Your task to perform on an android device: turn off priority inbox in the gmail app Image 0: 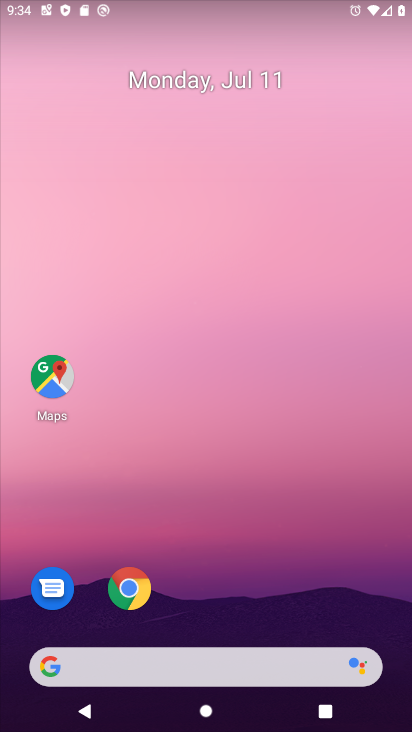
Step 0: drag from (183, 482) to (269, 44)
Your task to perform on an android device: turn off priority inbox in the gmail app Image 1: 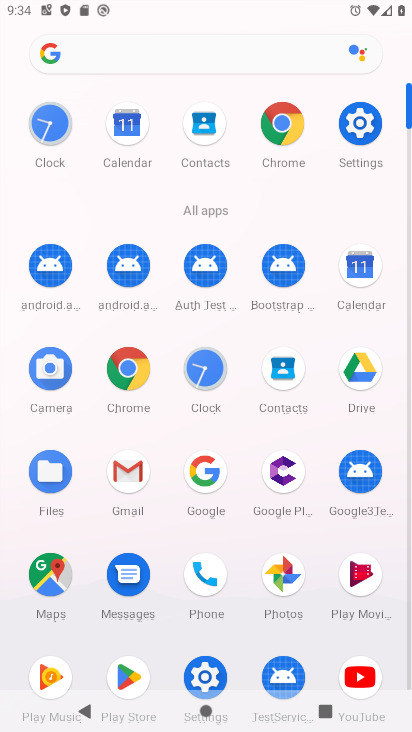
Step 1: click (127, 460)
Your task to perform on an android device: turn off priority inbox in the gmail app Image 2: 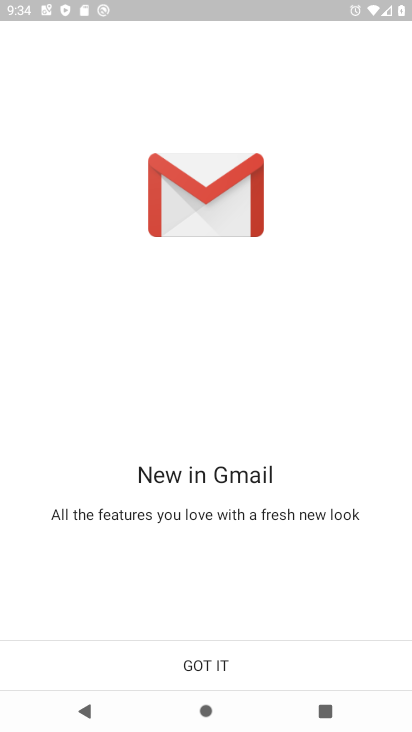
Step 2: click (203, 645)
Your task to perform on an android device: turn off priority inbox in the gmail app Image 3: 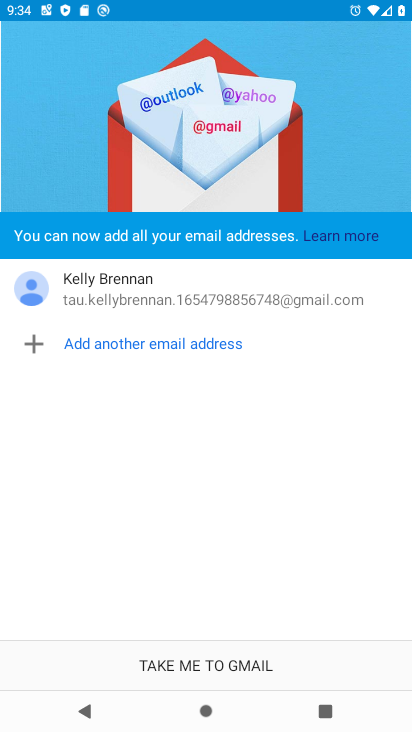
Step 3: click (182, 660)
Your task to perform on an android device: turn off priority inbox in the gmail app Image 4: 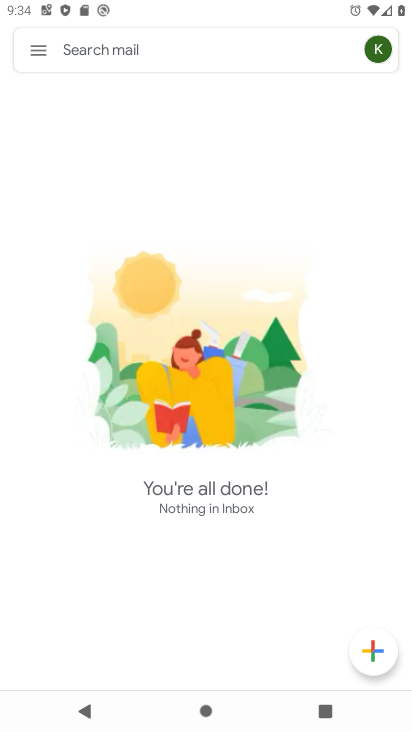
Step 4: click (32, 48)
Your task to perform on an android device: turn off priority inbox in the gmail app Image 5: 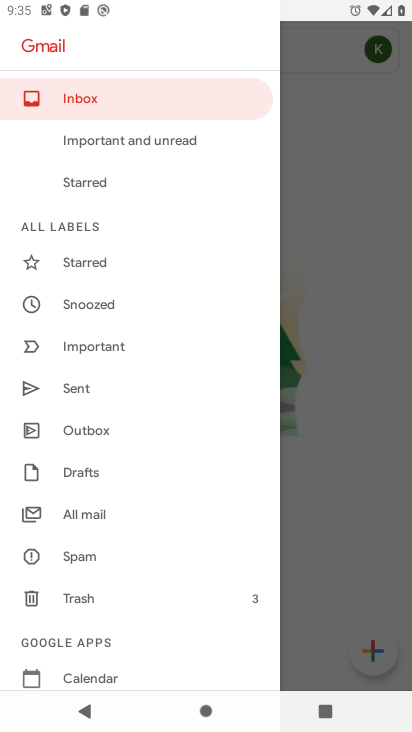
Step 5: drag from (157, 647) to (201, 178)
Your task to perform on an android device: turn off priority inbox in the gmail app Image 6: 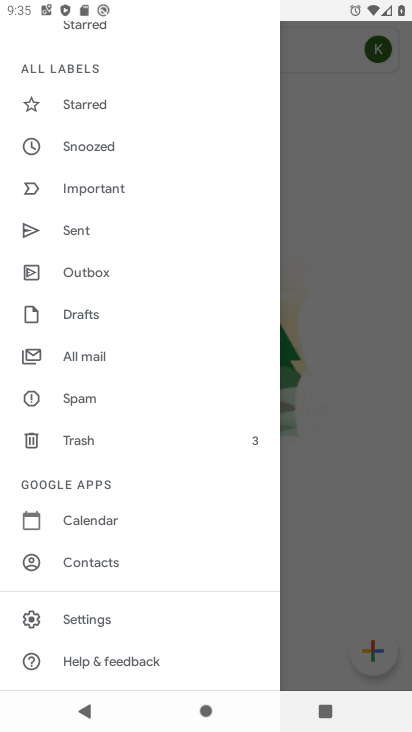
Step 6: click (98, 615)
Your task to perform on an android device: turn off priority inbox in the gmail app Image 7: 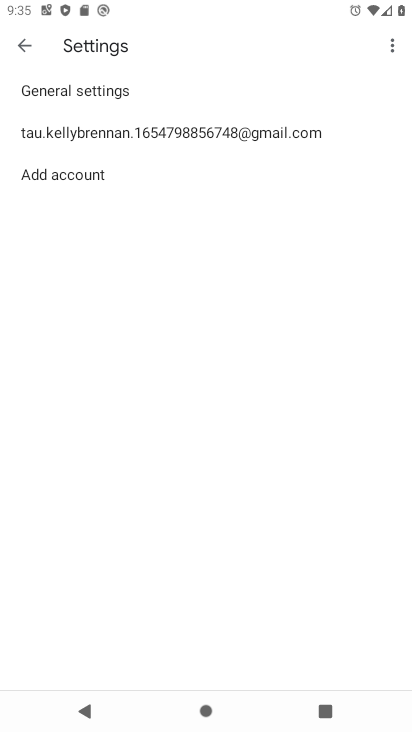
Step 7: click (127, 136)
Your task to perform on an android device: turn off priority inbox in the gmail app Image 8: 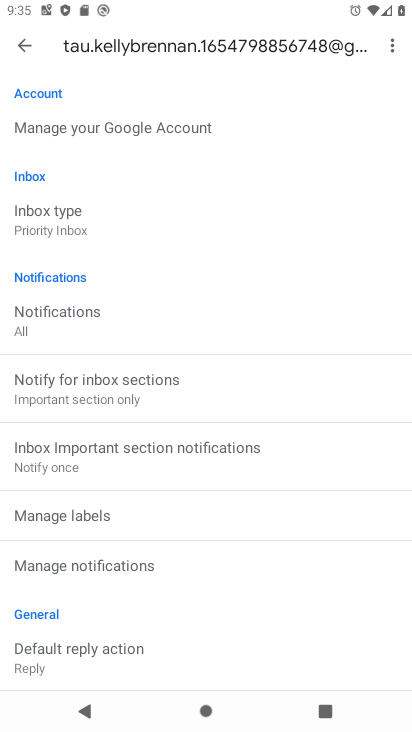
Step 8: click (34, 231)
Your task to perform on an android device: turn off priority inbox in the gmail app Image 9: 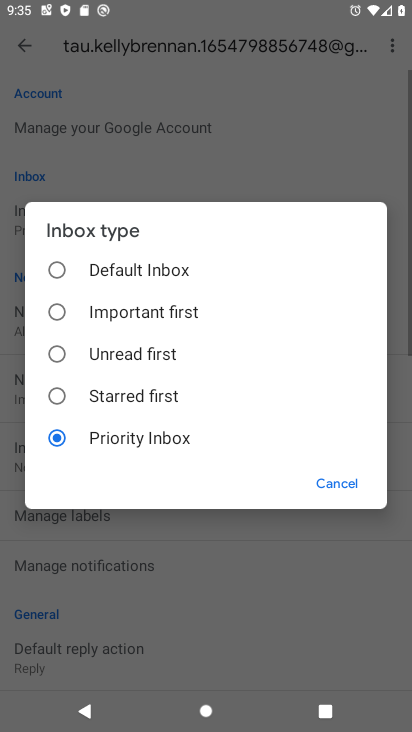
Step 9: click (54, 270)
Your task to perform on an android device: turn off priority inbox in the gmail app Image 10: 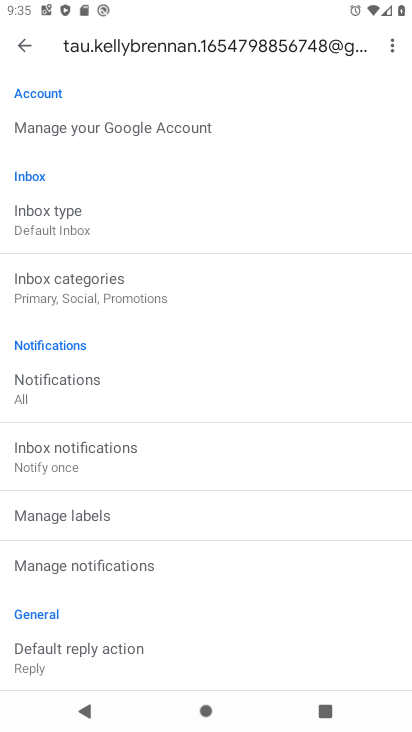
Step 10: task complete